Your task to perform on an android device: Open Reddit.com Image 0: 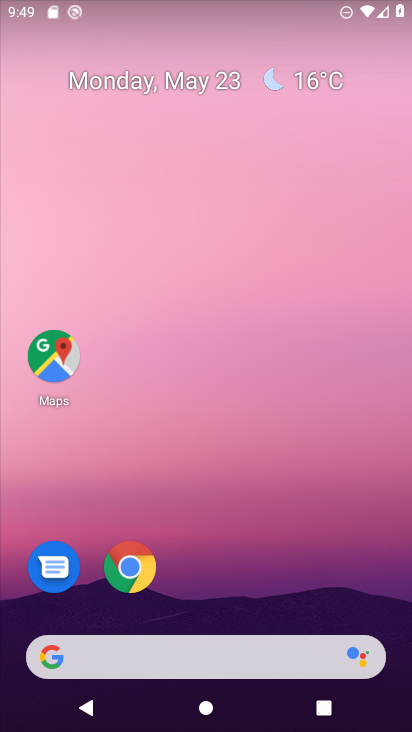
Step 0: drag from (231, 314) to (257, 114)
Your task to perform on an android device: Open Reddit.com Image 1: 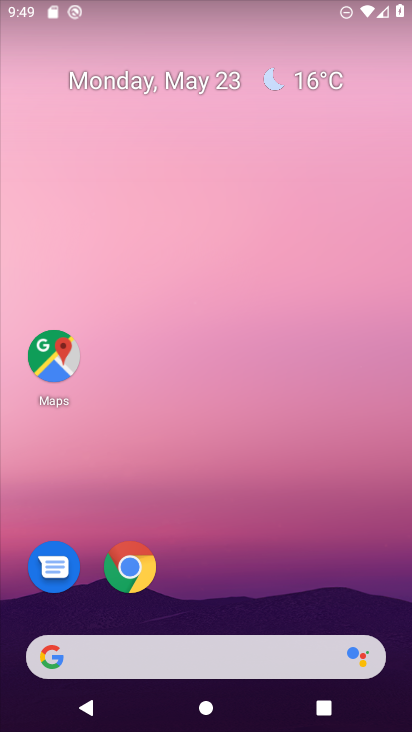
Step 1: drag from (194, 595) to (199, 216)
Your task to perform on an android device: Open Reddit.com Image 2: 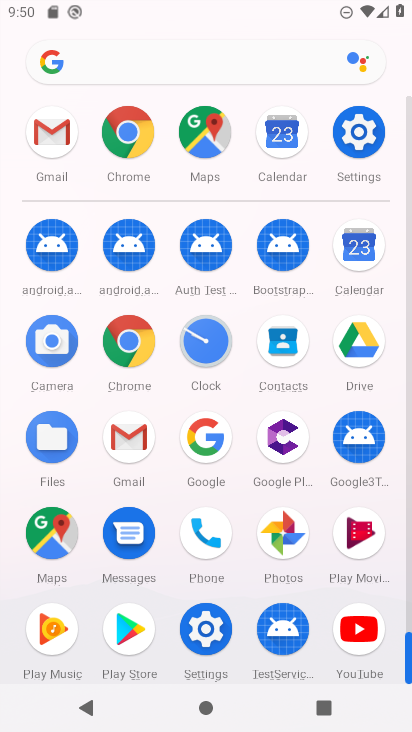
Step 2: click (115, 58)
Your task to perform on an android device: Open Reddit.com Image 3: 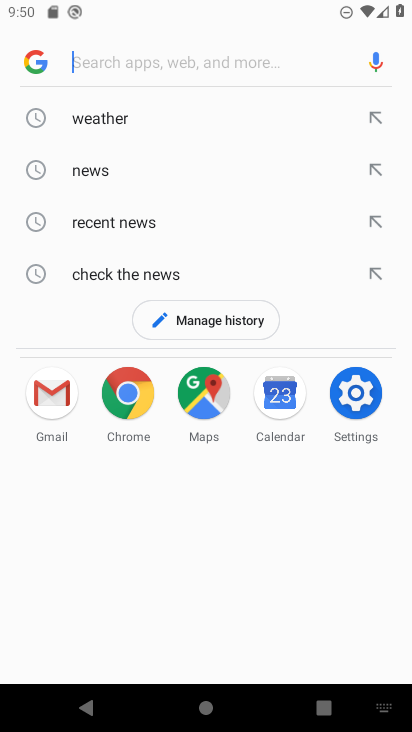
Step 3: type "Reddit.com"
Your task to perform on an android device: Open Reddit.com Image 4: 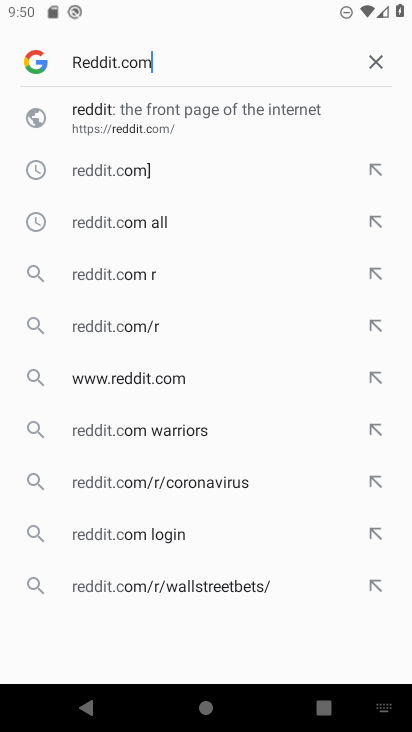
Step 4: type ""
Your task to perform on an android device: Open Reddit.com Image 5: 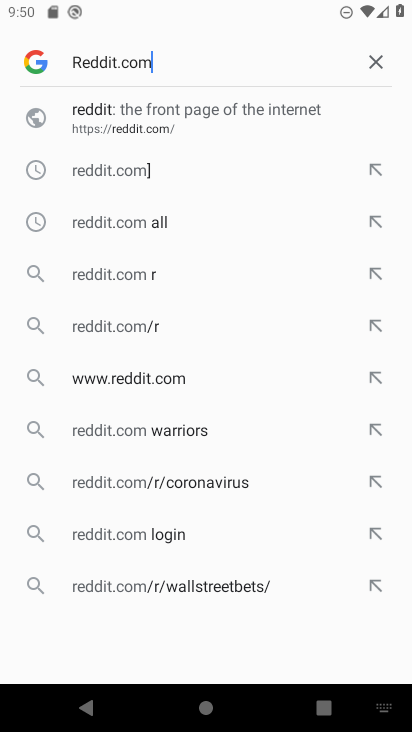
Step 5: click (121, 115)
Your task to perform on an android device: Open Reddit.com Image 6: 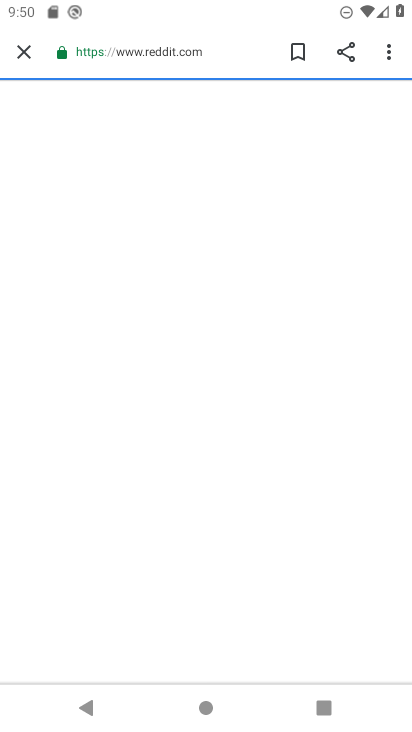
Step 6: task complete